Your task to perform on an android device: Play the last video I watched on Youtube Image 0: 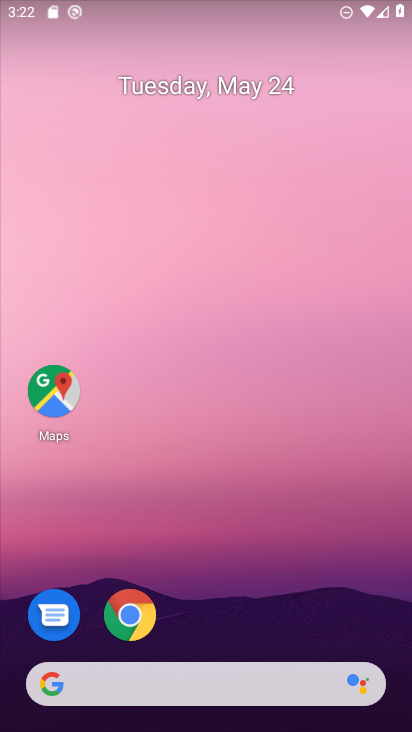
Step 0: drag from (284, 629) to (320, 568)
Your task to perform on an android device: Play the last video I watched on Youtube Image 1: 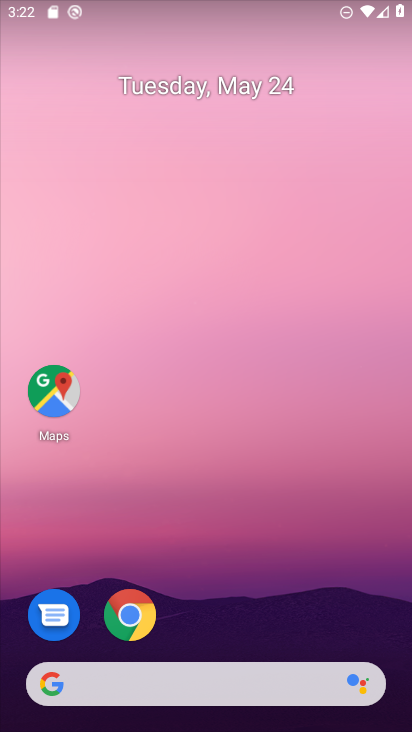
Step 1: drag from (219, 671) to (306, 24)
Your task to perform on an android device: Play the last video I watched on Youtube Image 2: 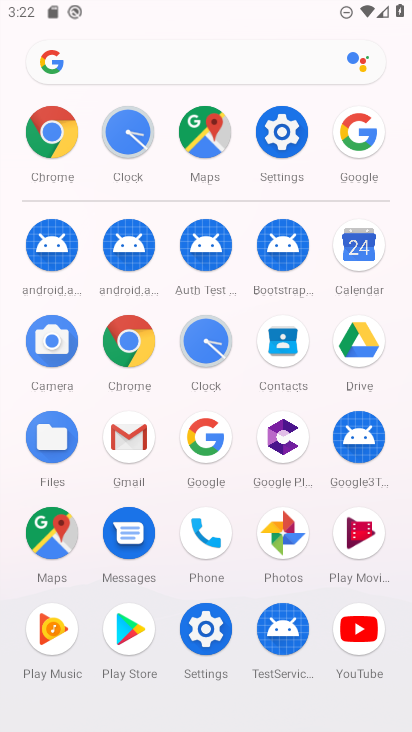
Step 2: click (362, 639)
Your task to perform on an android device: Play the last video I watched on Youtube Image 3: 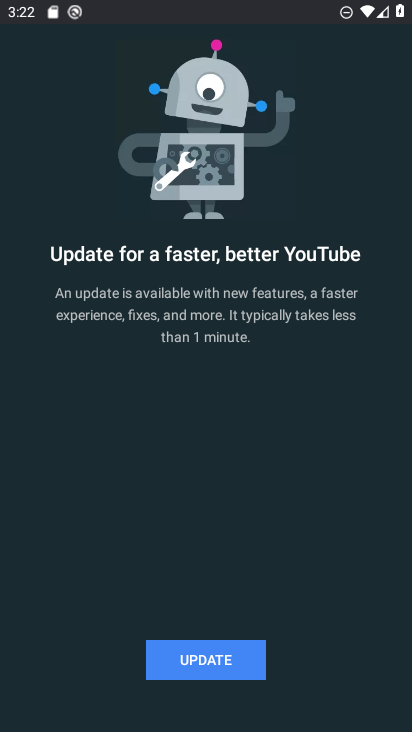
Step 3: click (250, 664)
Your task to perform on an android device: Play the last video I watched on Youtube Image 4: 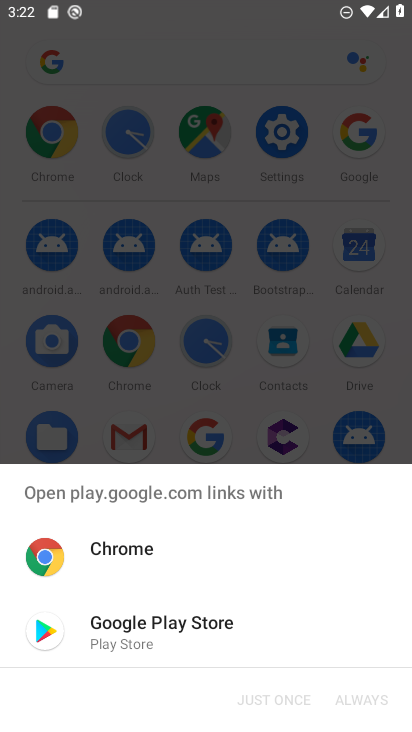
Step 4: click (222, 632)
Your task to perform on an android device: Play the last video I watched on Youtube Image 5: 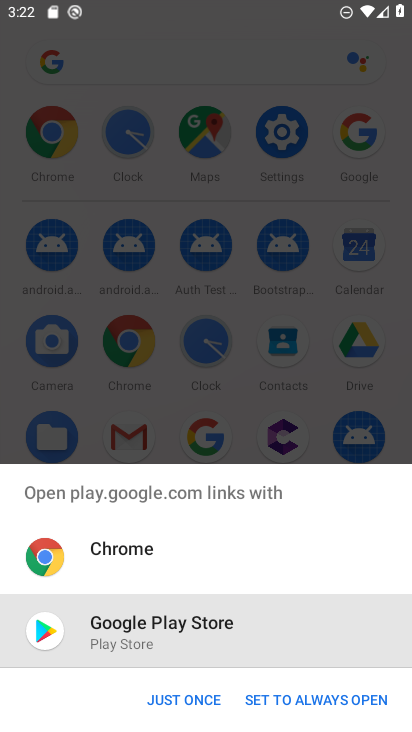
Step 5: click (193, 698)
Your task to perform on an android device: Play the last video I watched on Youtube Image 6: 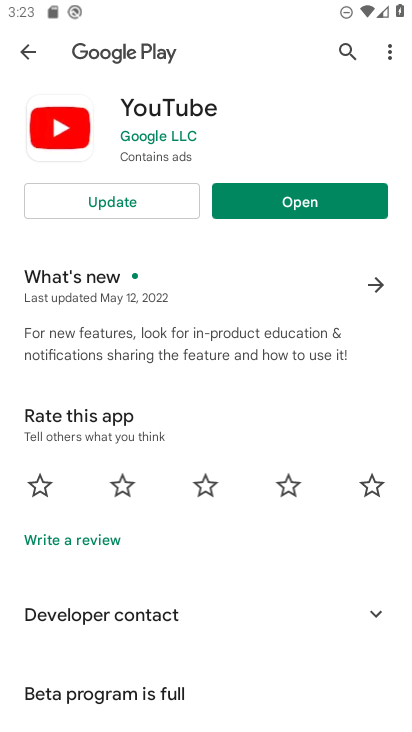
Step 6: click (166, 202)
Your task to perform on an android device: Play the last video I watched on Youtube Image 7: 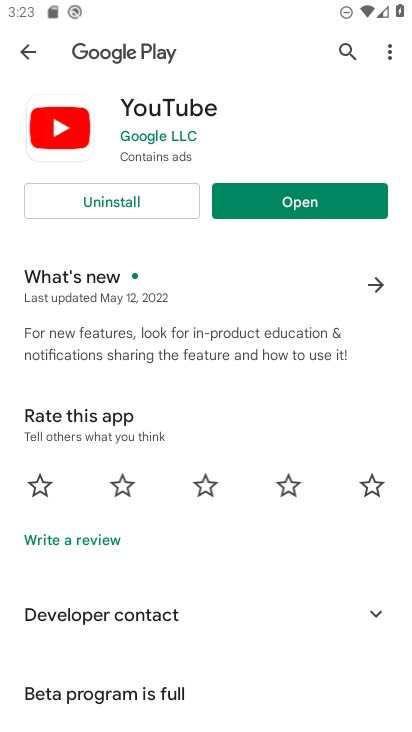
Step 7: task complete